Your task to perform on an android device: turn off wifi Image 0: 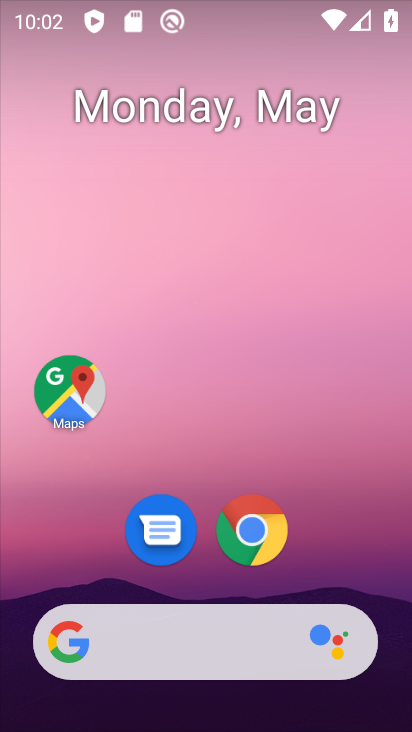
Step 0: drag from (235, 680) to (257, 131)
Your task to perform on an android device: turn off wifi Image 1: 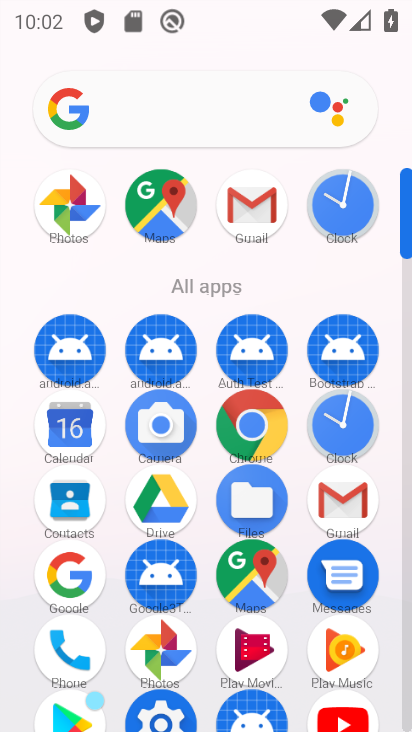
Step 1: click (172, 711)
Your task to perform on an android device: turn off wifi Image 2: 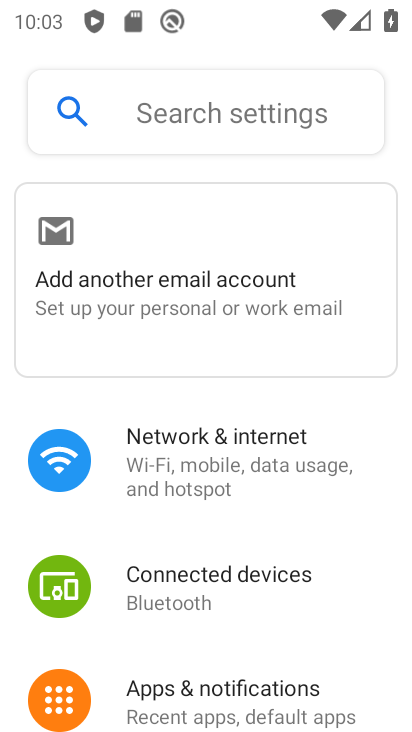
Step 2: click (169, 474)
Your task to perform on an android device: turn off wifi Image 3: 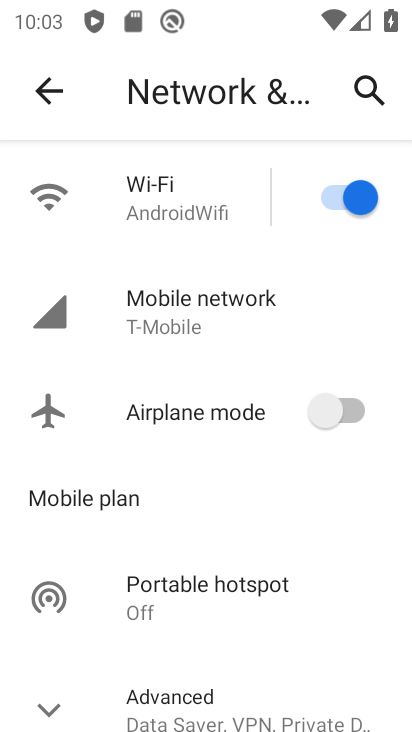
Step 3: click (319, 198)
Your task to perform on an android device: turn off wifi Image 4: 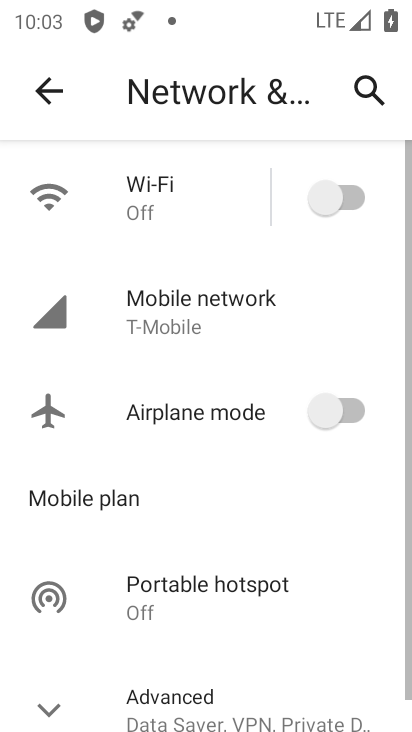
Step 4: task complete